Your task to perform on an android device: uninstall "Google News" Image 0: 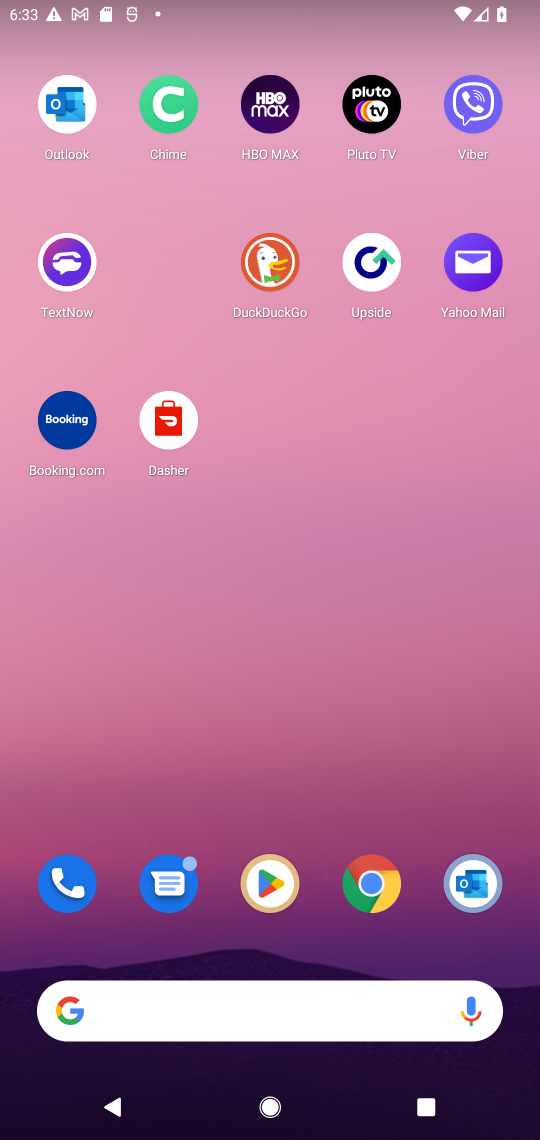
Step 0: click (283, 848)
Your task to perform on an android device: uninstall "Google News" Image 1: 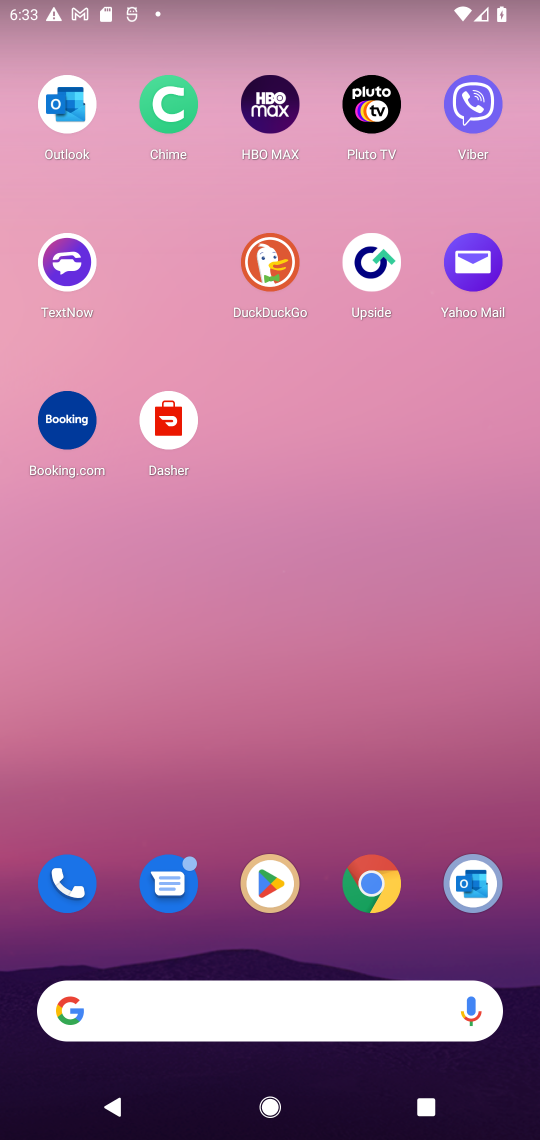
Step 1: click (274, 873)
Your task to perform on an android device: uninstall "Google News" Image 2: 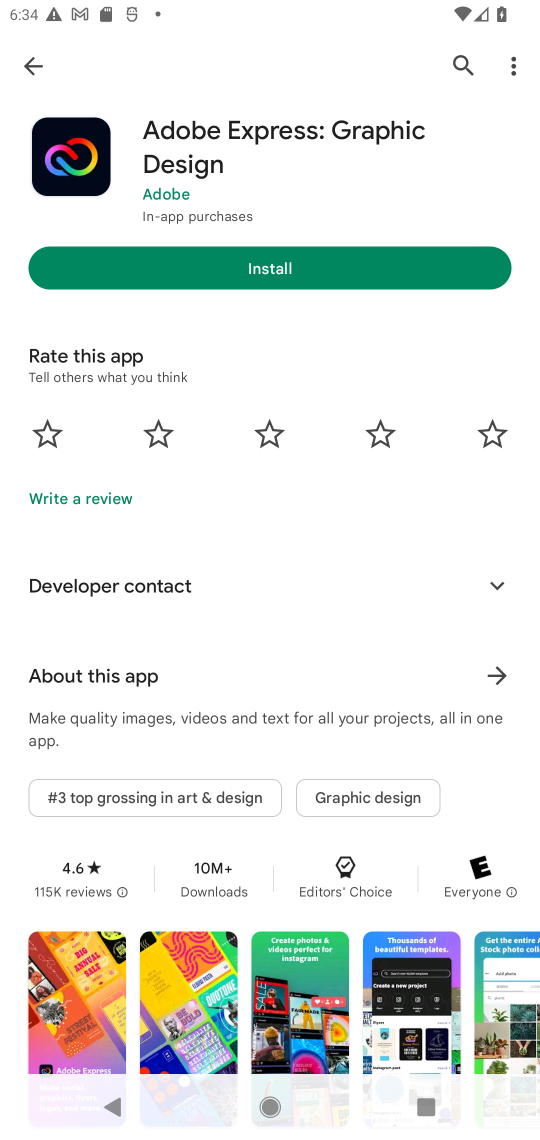
Step 2: click (449, 61)
Your task to perform on an android device: uninstall "Google News" Image 3: 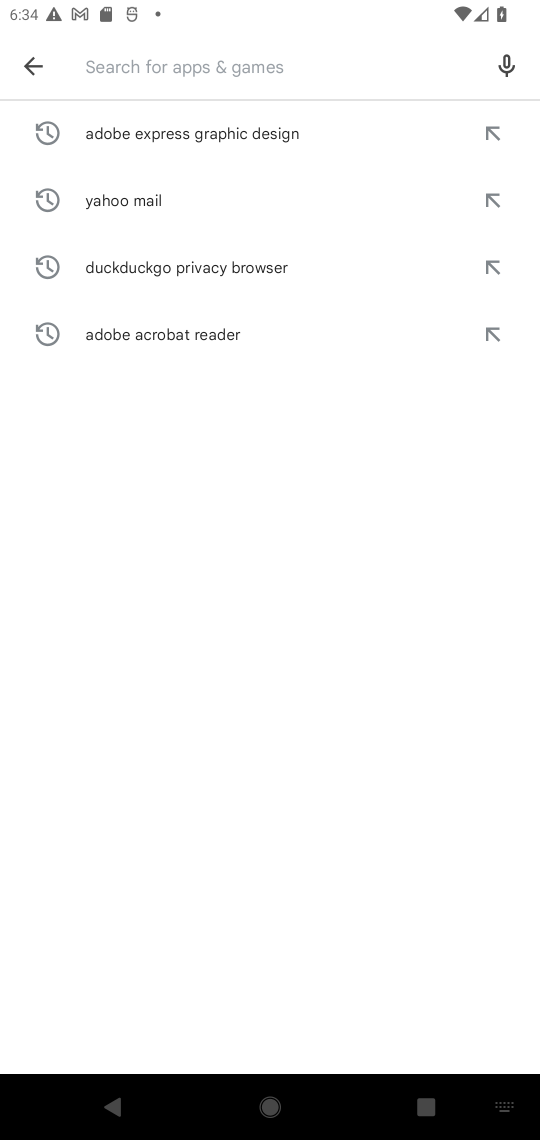
Step 3: type "Google News"
Your task to perform on an android device: uninstall "Google News" Image 4: 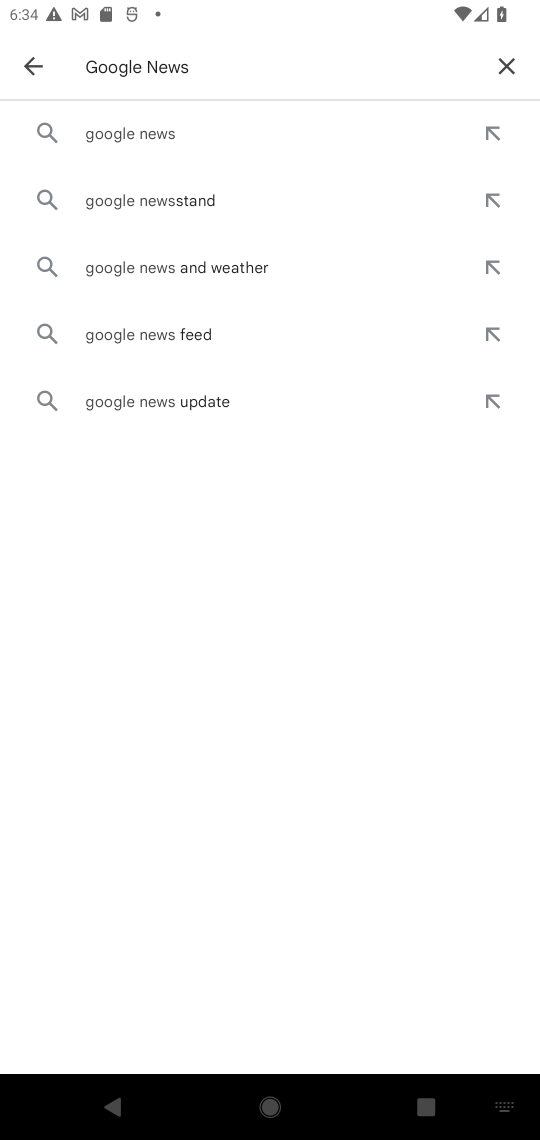
Step 4: click (164, 140)
Your task to perform on an android device: uninstall "Google News" Image 5: 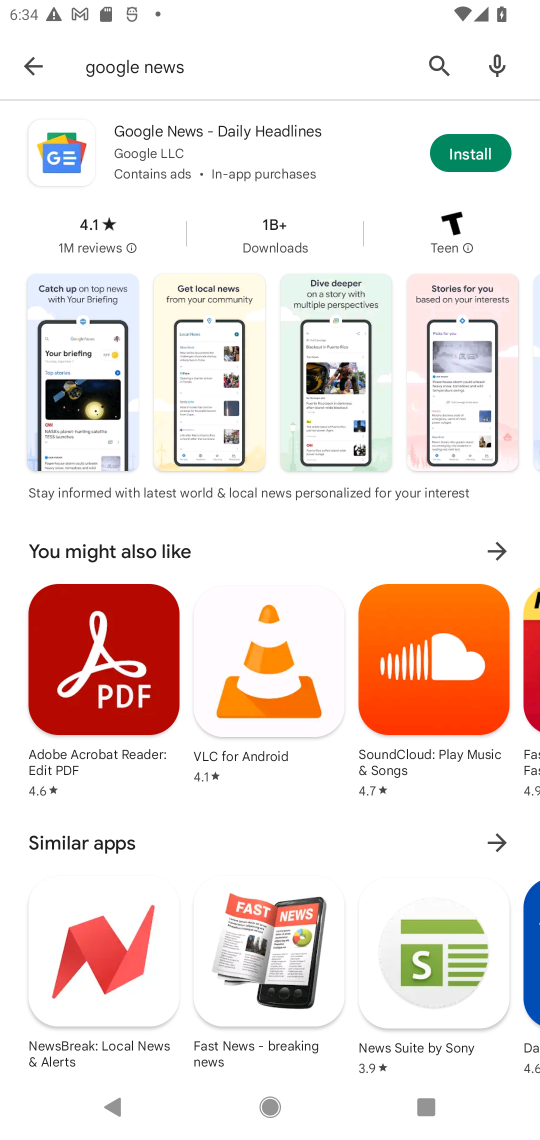
Step 5: task complete